Your task to perform on an android device: Go to Google Image 0: 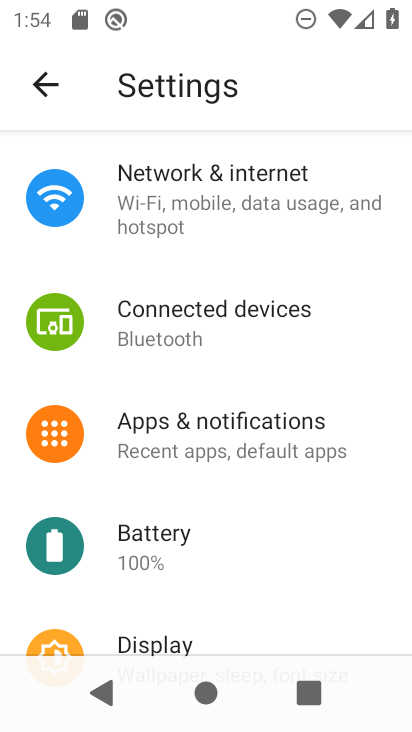
Step 0: press home button
Your task to perform on an android device: Go to Google Image 1: 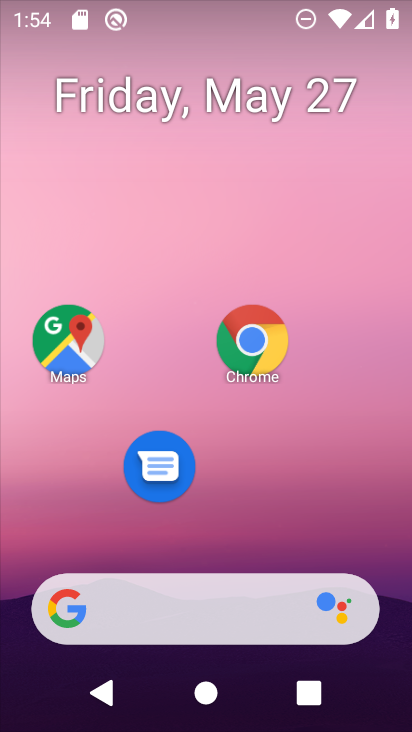
Step 1: drag from (392, 578) to (312, 49)
Your task to perform on an android device: Go to Google Image 2: 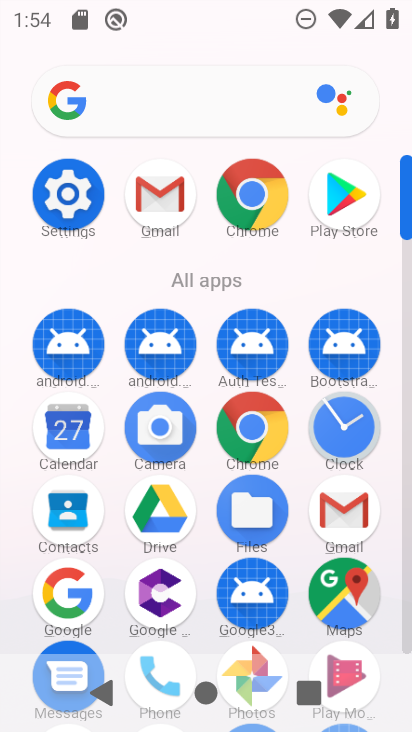
Step 2: click (85, 601)
Your task to perform on an android device: Go to Google Image 3: 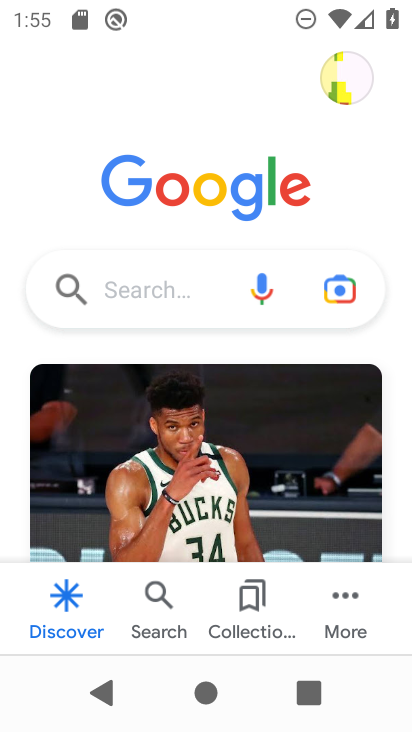
Step 3: task complete